Your task to perform on an android device: Open Reddit.com Image 0: 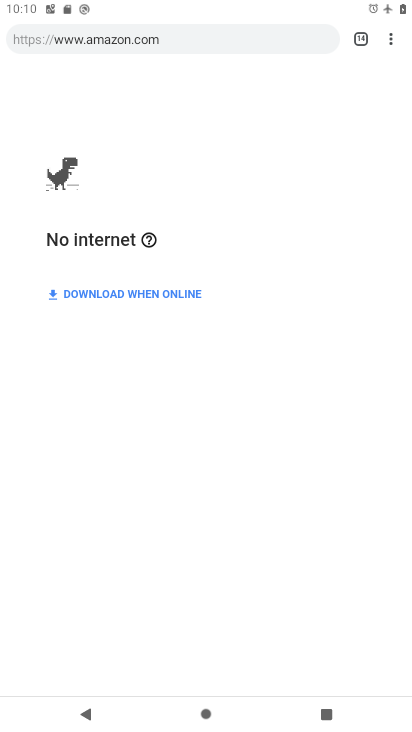
Step 0: press home button
Your task to perform on an android device: Open Reddit.com Image 1: 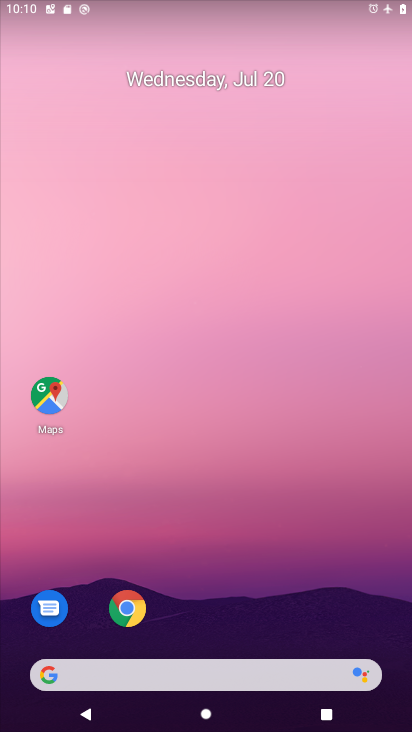
Step 1: click (131, 605)
Your task to perform on an android device: Open Reddit.com Image 2: 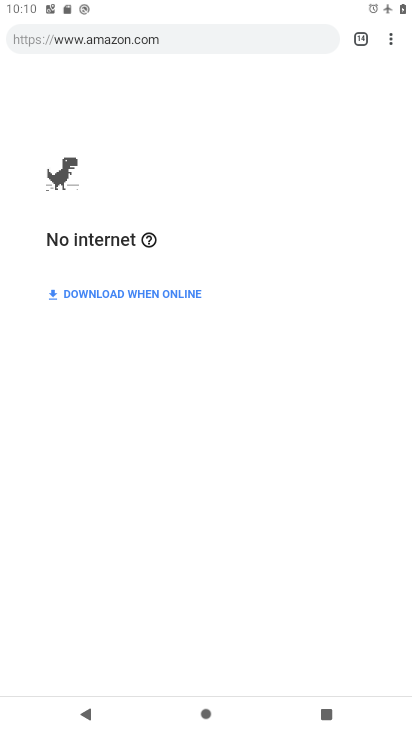
Step 2: click (395, 28)
Your task to perform on an android device: Open Reddit.com Image 3: 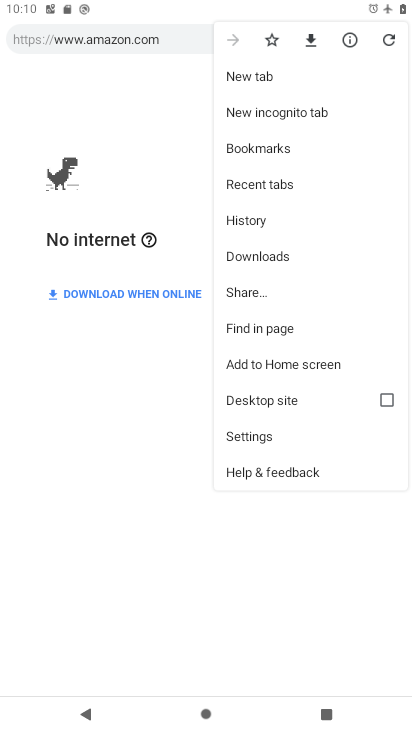
Step 3: click (246, 82)
Your task to perform on an android device: Open Reddit.com Image 4: 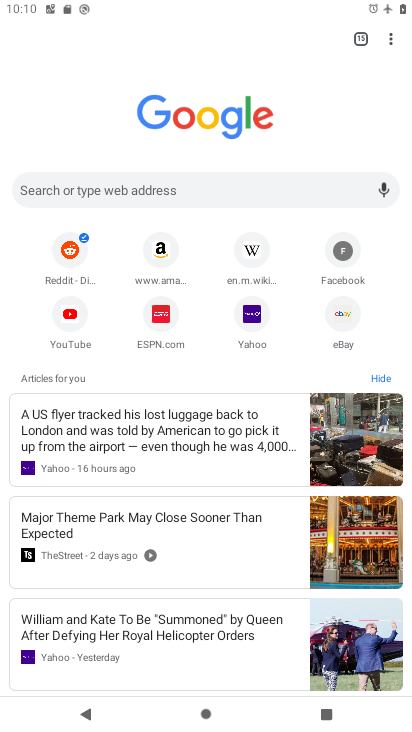
Step 4: click (211, 180)
Your task to perform on an android device: Open Reddit.com Image 5: 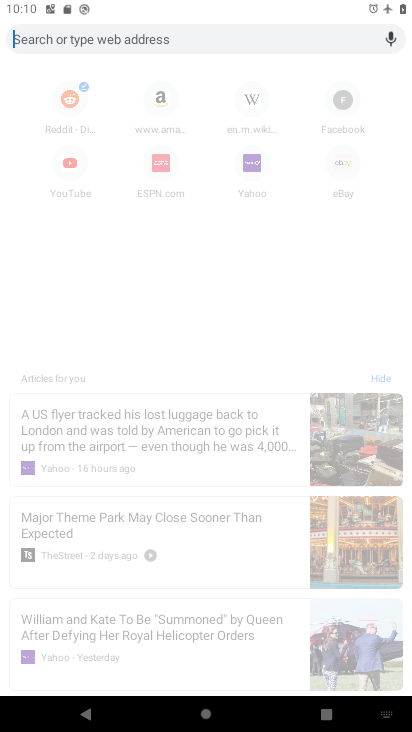
Step 5: type "Reddit.com "
Your task to perform on an android device: Open Reddit.com Image 6: 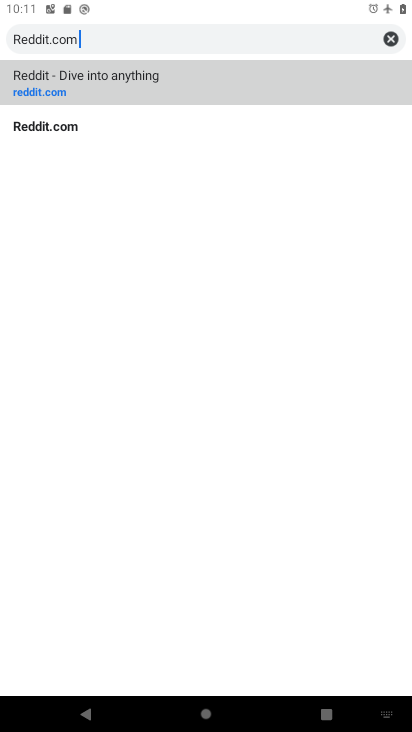
Step 6: click (127, 71)
Your task to perform on an android device: Open Reddit.com Image 7: 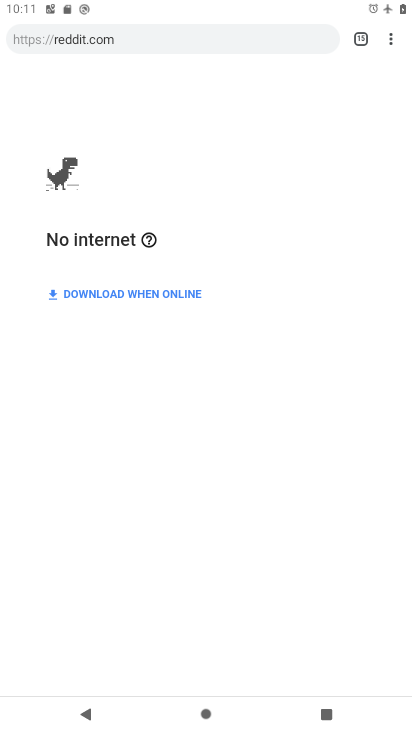
Step 7: task complete